Your task to perform on an android device: Search for a new foundation (skincare) product Image 0: 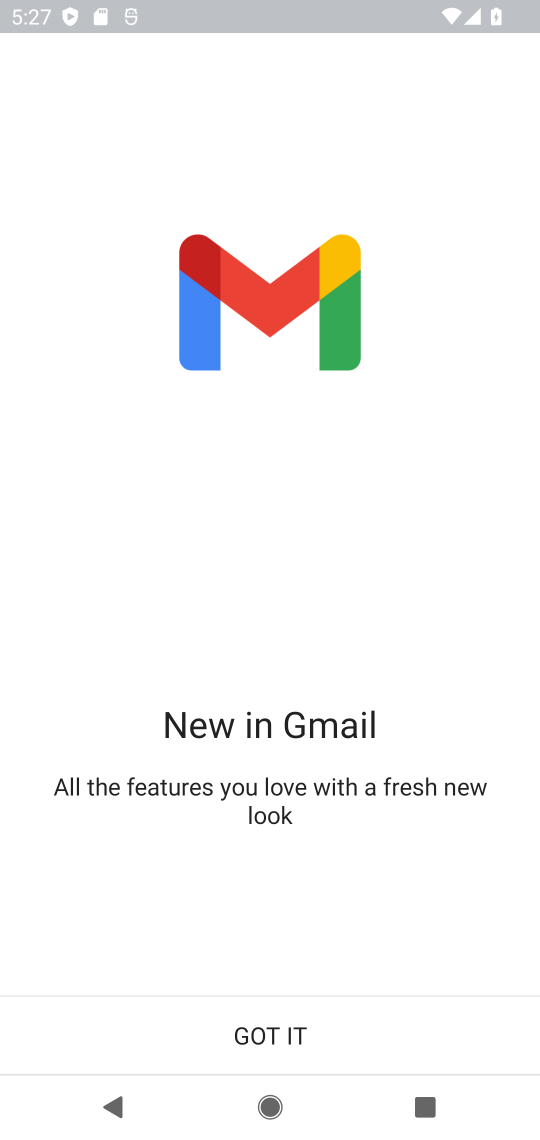
Step 0: press home button
Your task to perform on an android device: Search for a new foundation (skincare) product Image 1: 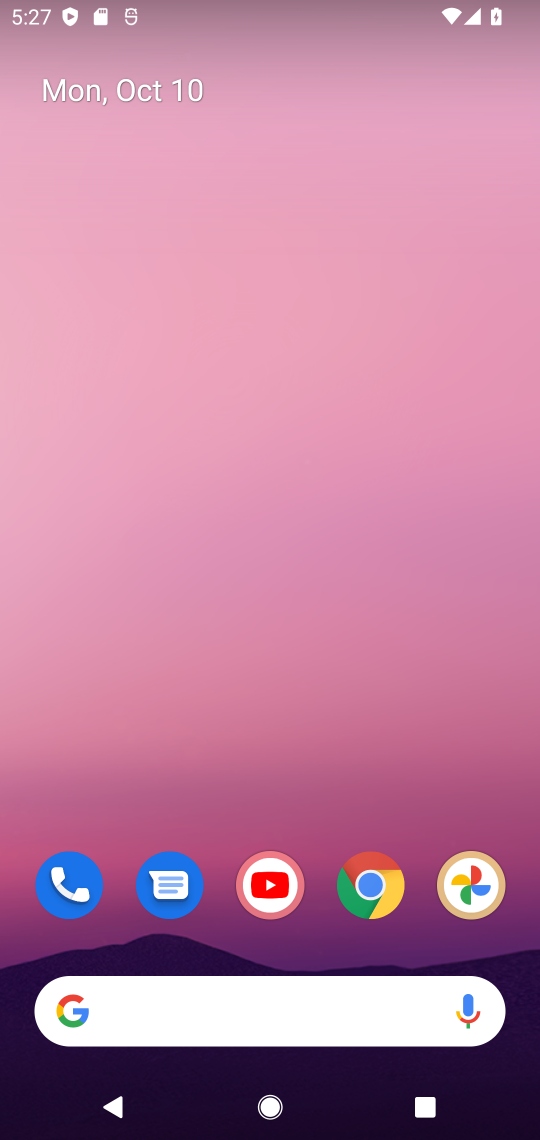
Step 1: click (365, 879)
Your task to perform on an android device: Search for a new foundation (skincare) product Image 2: 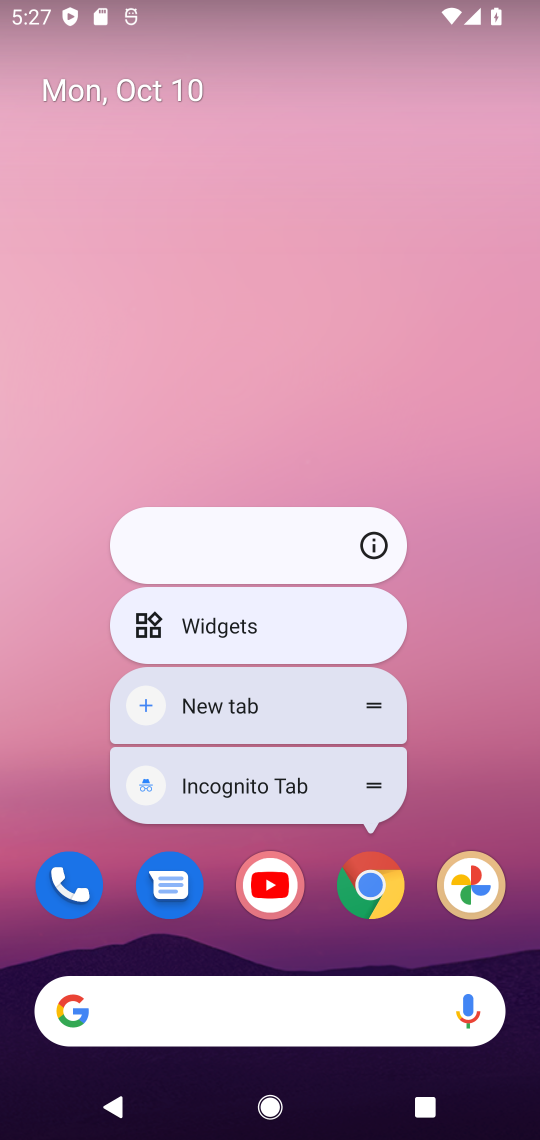
Step 2: click (359, 872)
Your task to perform on an android device: Search for a new foundation (skincare) product Image 3: 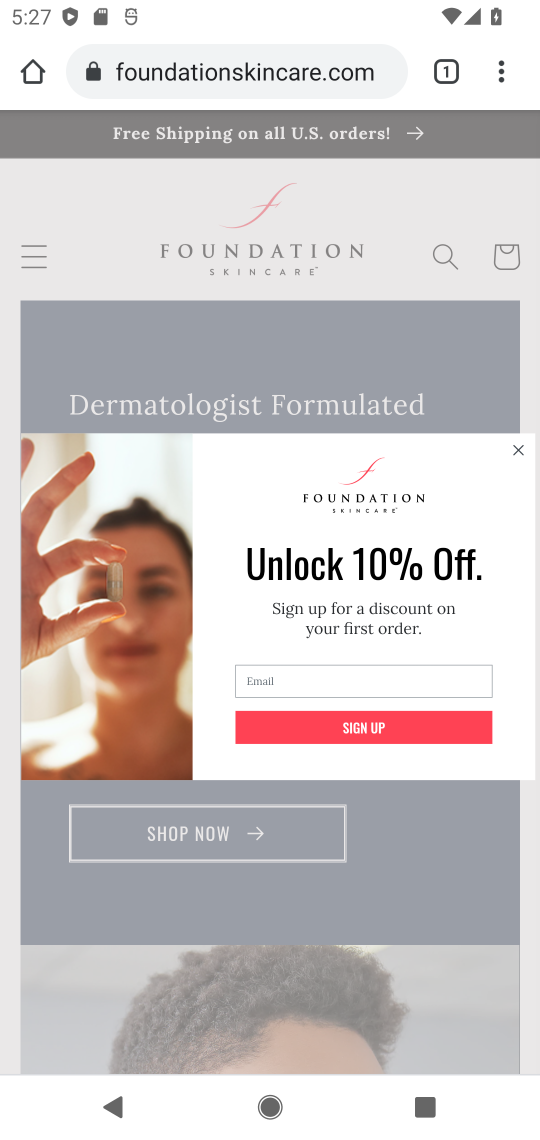
Step 3: drag from (277, 966) to (233, 320)
Your task to perform on an android device: Search for a new foundation (skincare) product Image 4: 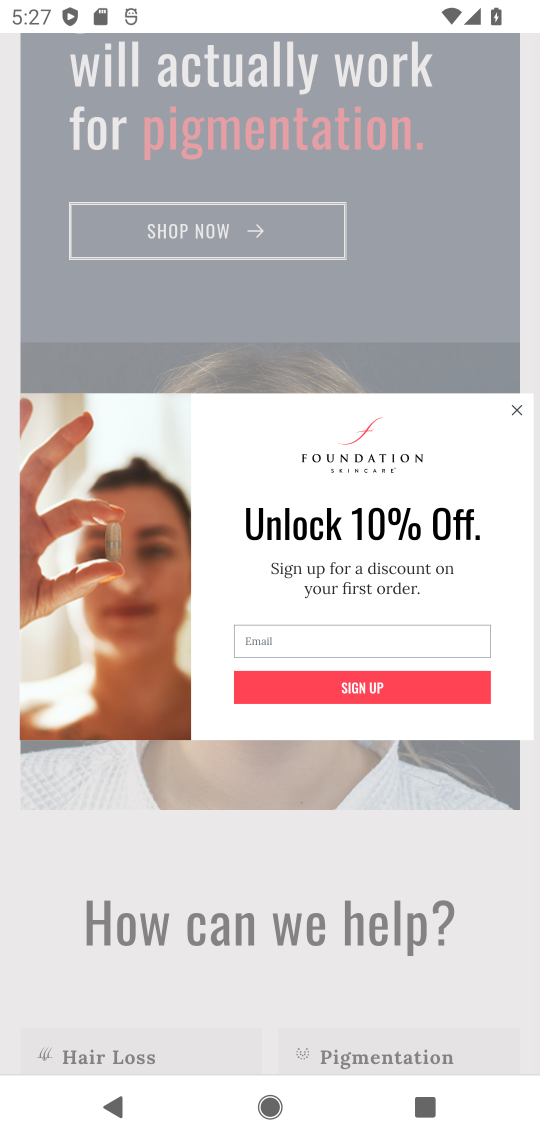
Step 4: click (518, 407)
Your task to perform on an android device: Search for a new foundation (skincare) product Image 5: 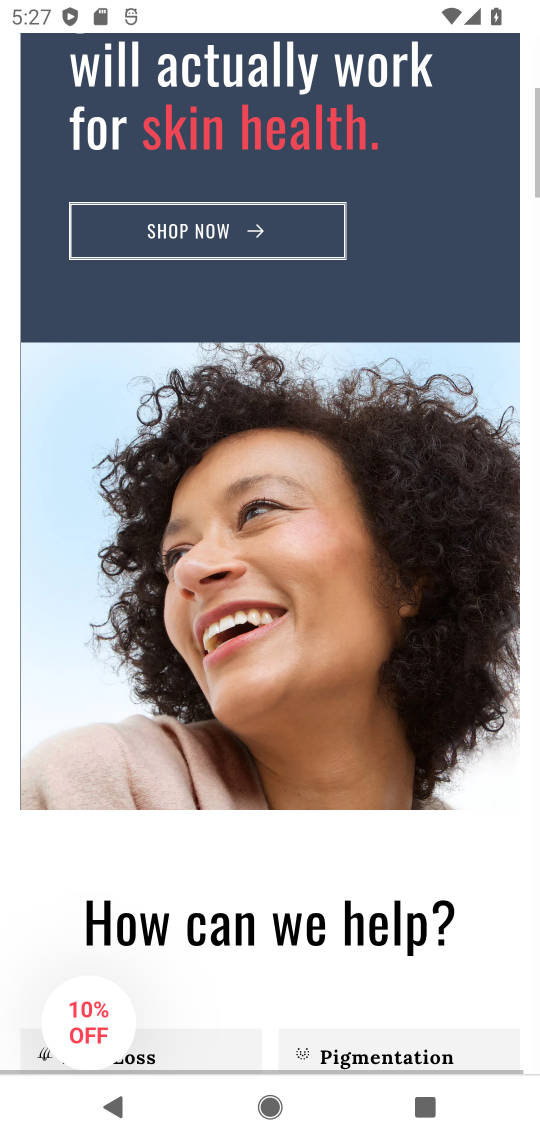
Step 5: drag from (325, 710) to (379, 106)
Your task to perform on an android device: Search for a new foundation (skincare) product Image 6: 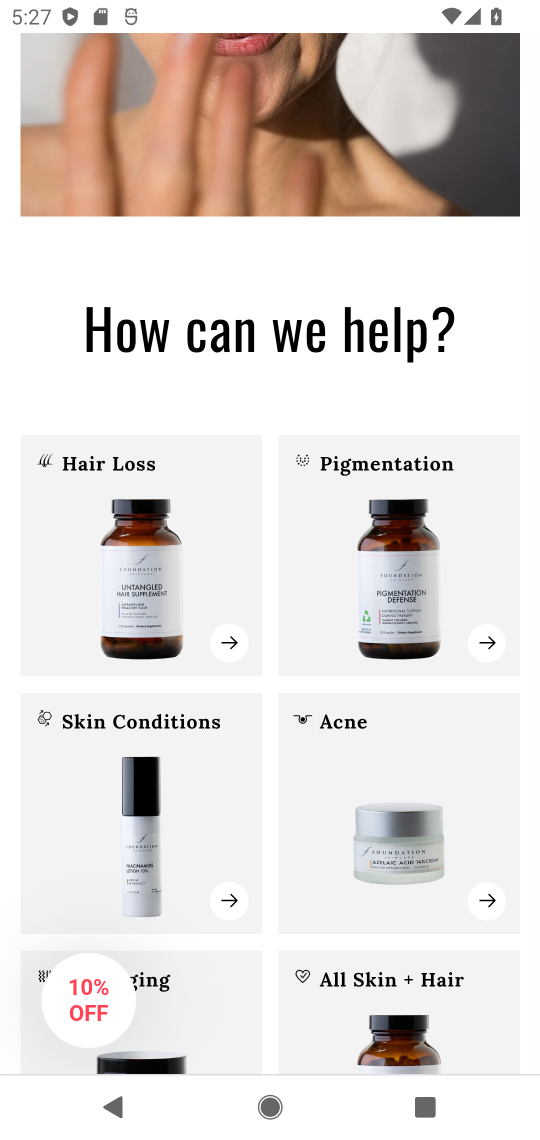
Step 6: drag from (369, 783) to (304, 306)
Your task to perform on an android device: Search for a new foundation (skincare) product Image 7: 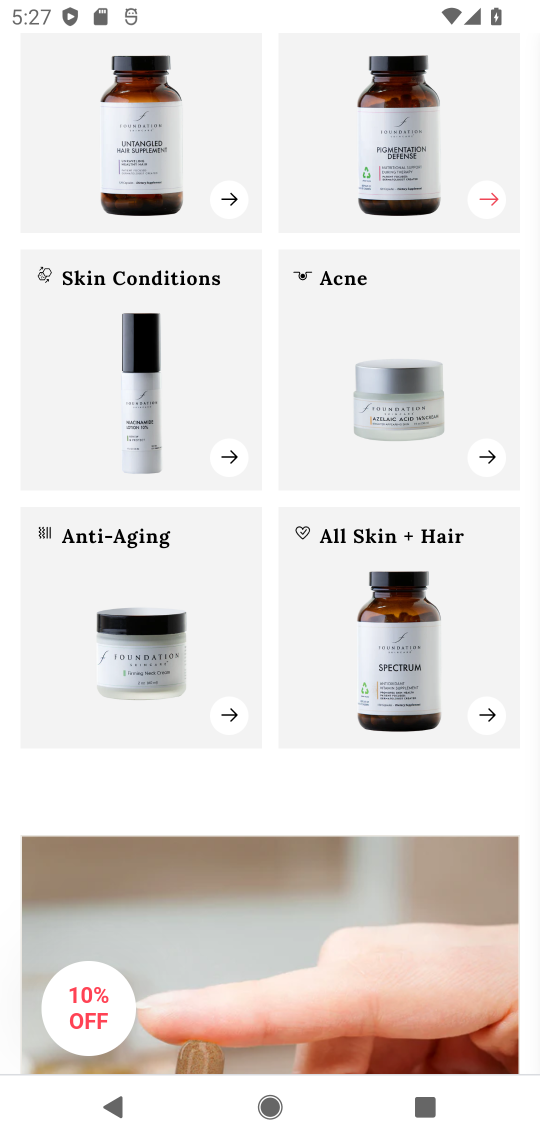
Step 7: click (114, 1112)
Your task to perform on an android device: Search for a new foundation (skincare) product Image 8: 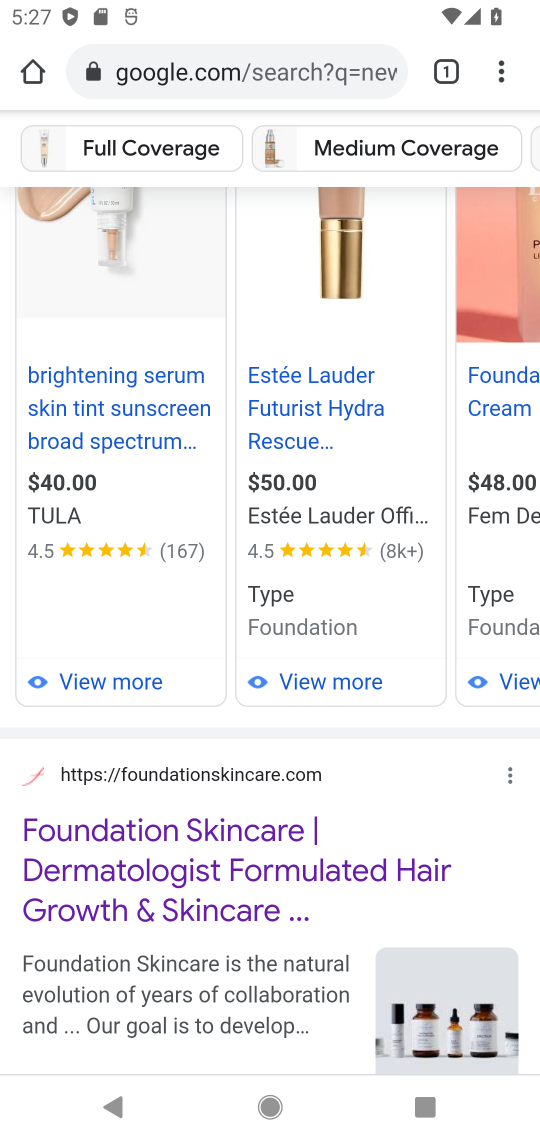
Step 8: task complete